Your task to perform on an android device: choose inbox layout in the gmail app Image 0: 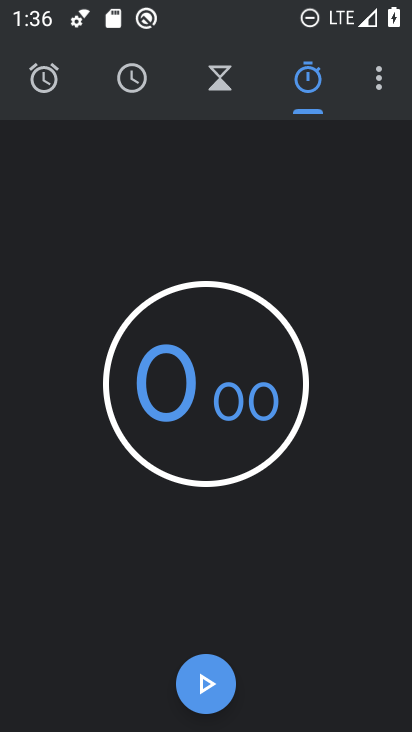
Step 0: press home button
Your task to perform on an android device: choose inbox layout in the gmail app Image 1: 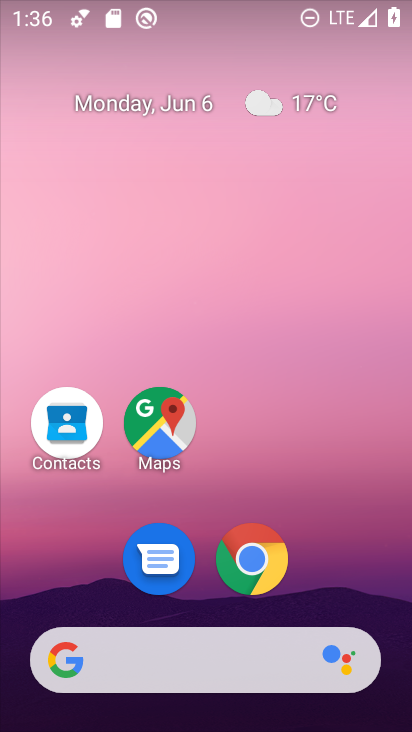
Step 1: drag from (154, 618) to (358, 64)
Your task to perform on an android device: choose inbox layout in the gmail app Image 2: 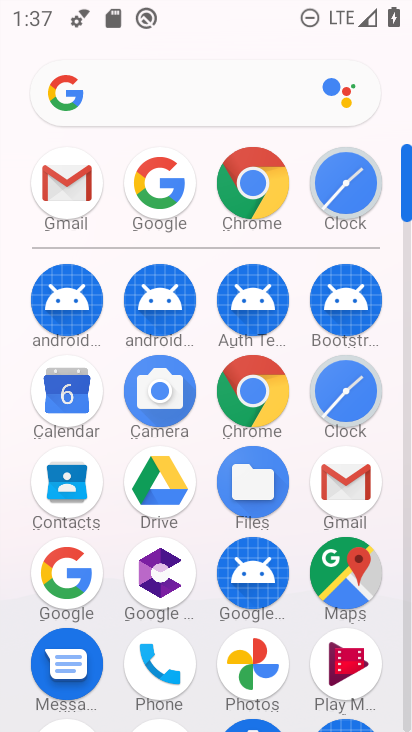
Step 2: click (348, 480)
Your task to perform on an android device: choose inbox layout in the gmail app Image 3: 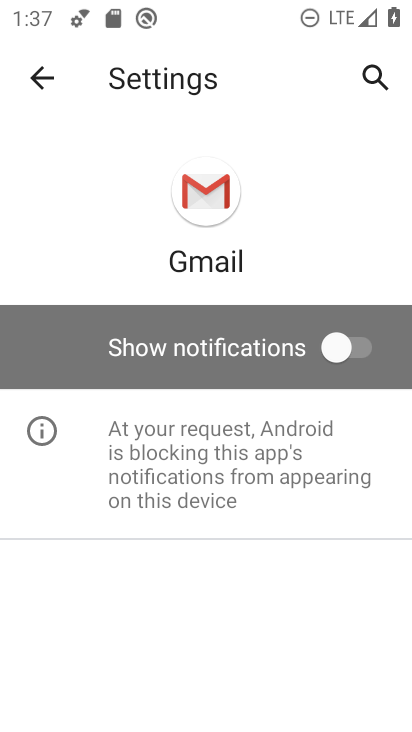
Step 3: click (47, 85)
Your task to perform on an android device: choose inbox layout in the gmail app Image 4: 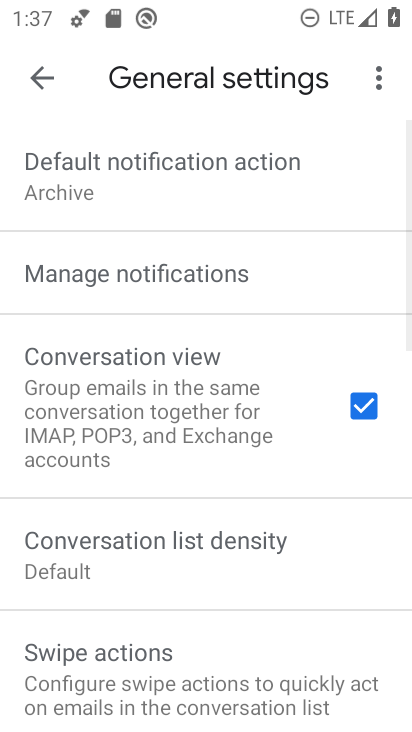
Step 4: click (29, 75)
Your task to perform on an android device: choose inbox layout in the gmail app Image 5: 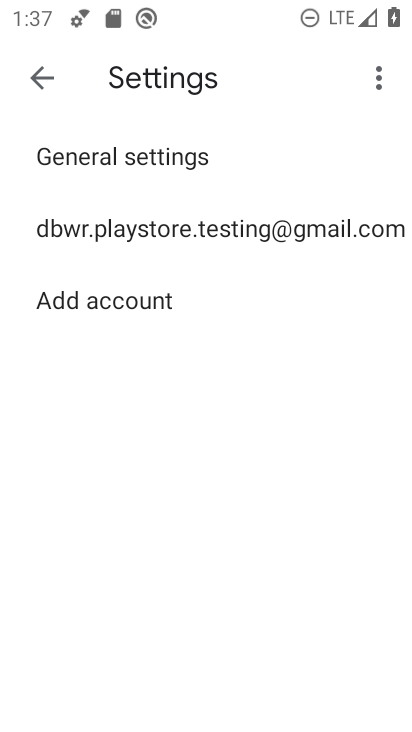
Step 5: task complete